Your task to perform on an android device: Show me productivity apps on the Play Store Image 0: 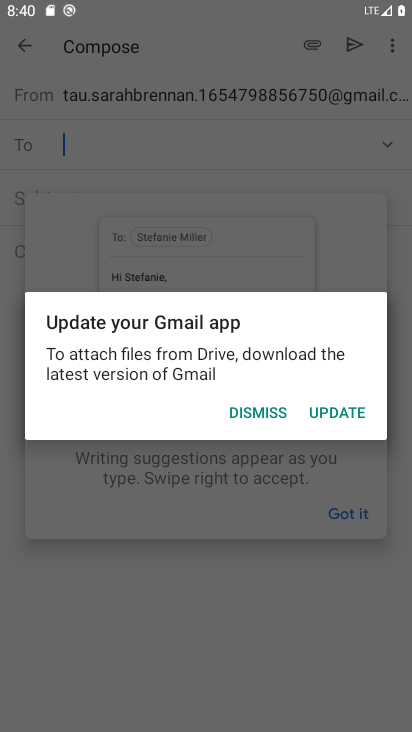
Step 0: press home button
Your task to perform on an android device: Show me productivity apps on the Play Store Image 1: 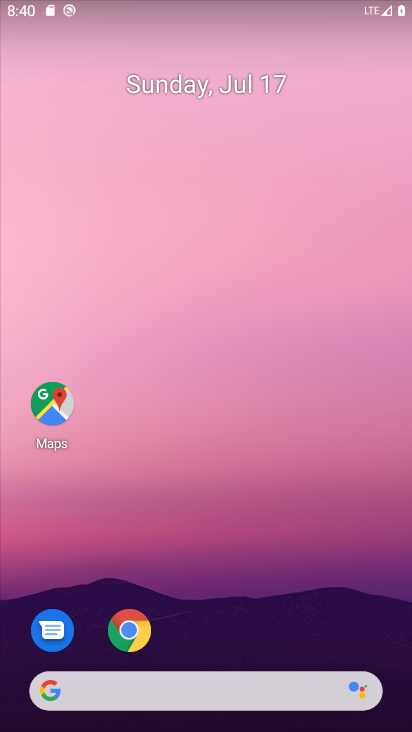
Step 1: drag from (246, 616) to (309, 506)
Your task to perform on an android device: Show me productivity apps on the Play Store Image 2: 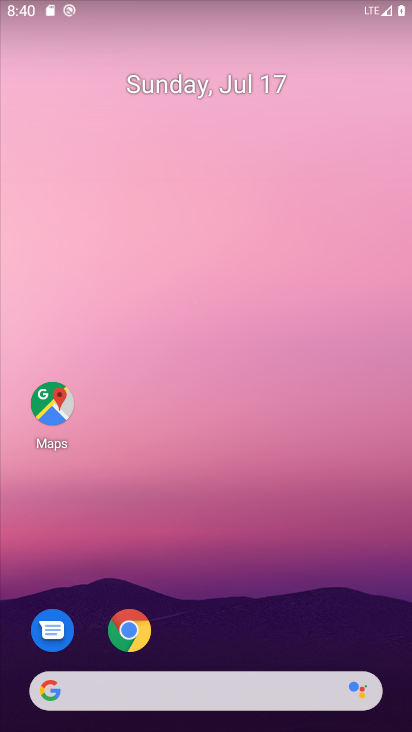
Step 2: drag from (183, 564) to (222, 7)
Your task to perform on an android device: Show me productivity apps on the Play Store Image 3: 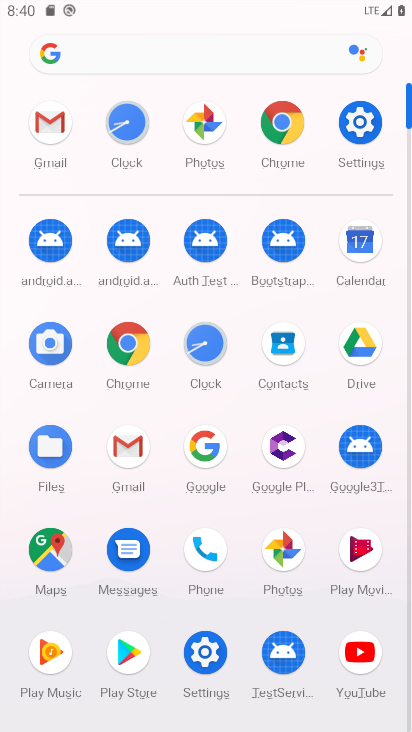
Step 3: click (125, 666)
Your task to perform on an android device: Show me productivity apps on the Play Store Image 4: 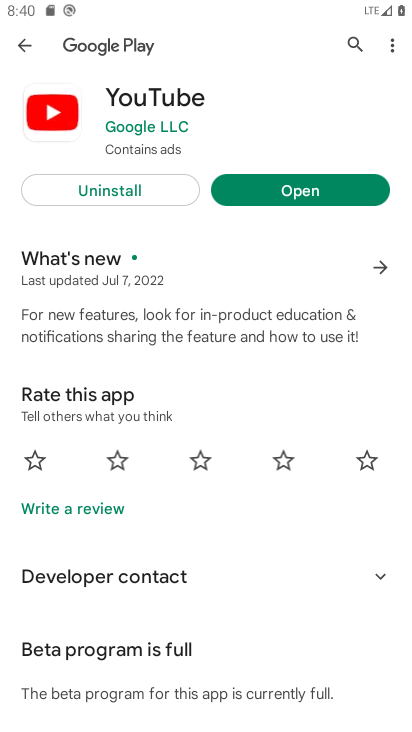
Step 4: click (26, 45)
Your task to perform on an android device: Show me productivity apps on the Play Store Image 5: 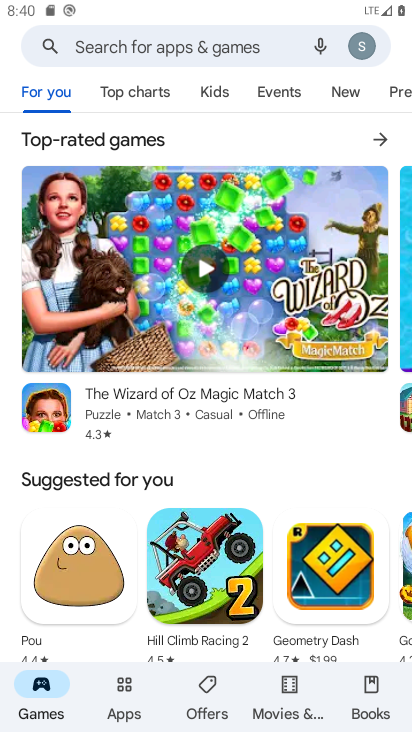
Step 5: click (132, 700)
Your task to perform on an android device: Show me productivity apps on the Play Store Image 6: 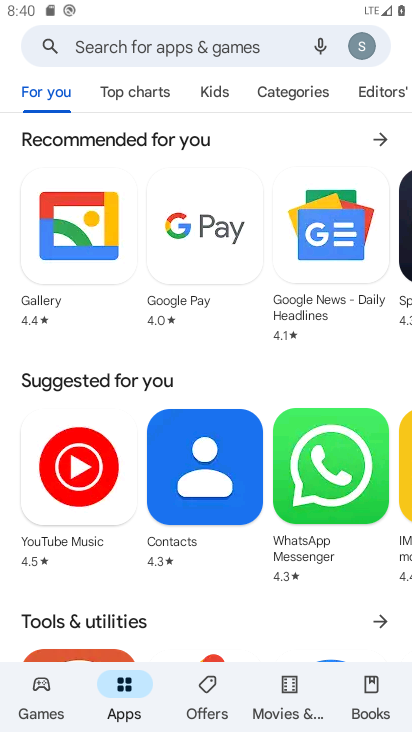
Step 6: click (301, 94)
Your task to perform on an android device: Show me productivity apps on the Play Store Image 7: 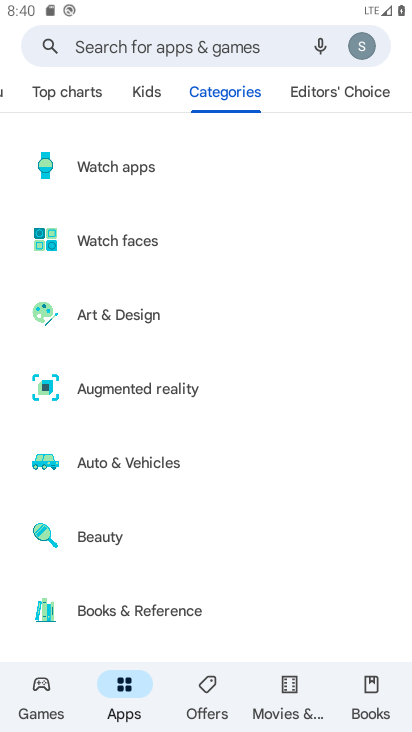
Step 7: drag from (146, 559) to (126, 133)
Your task to perform on an android device: Show me productivity apps on the Play Store Image 8: 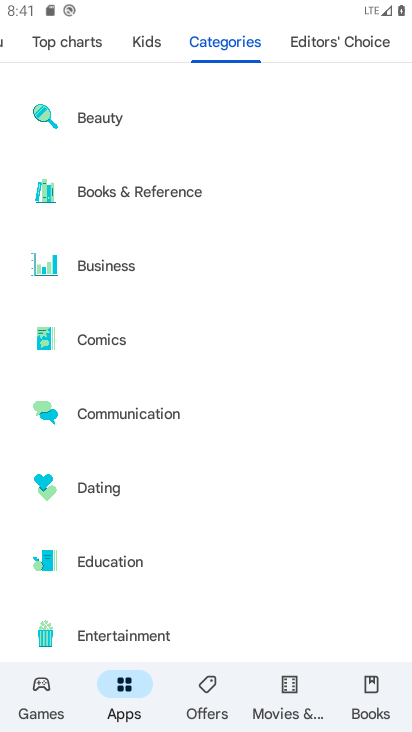
Step 8: drag from (127, 529) to (142, 95)
Your task to perform on an android device: Show me productivity apps on the Play Store Image 9: 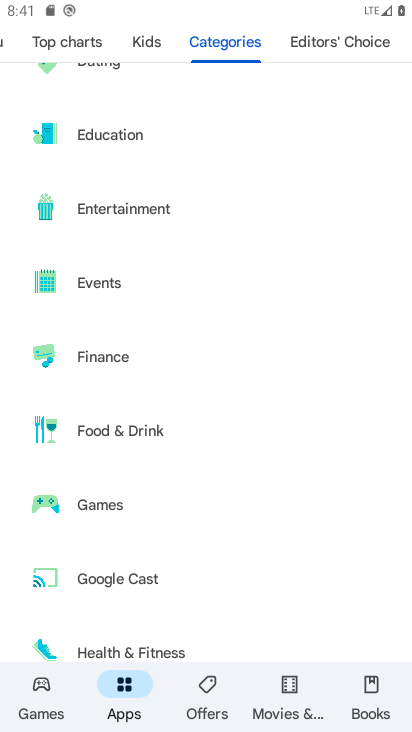
Step 9: drag from (150, 593) to (172, 146)
Your task to perform on an android device: Show me productivity apps on the Play Store Image 10: 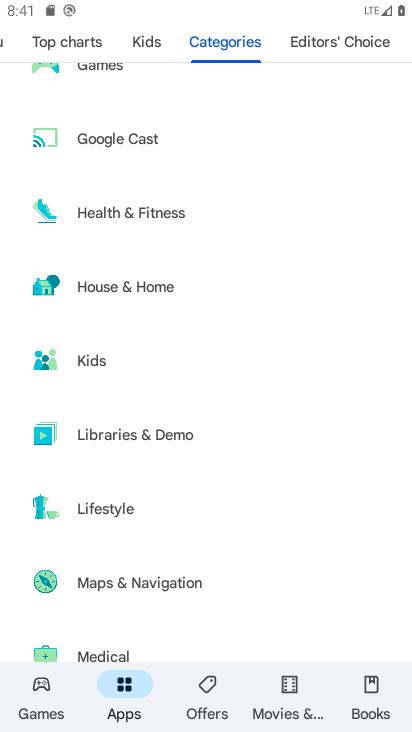
Step 10: drag from (126, 596) to (144, 212)
Your task to perform on an android device: Show me productivity apps on the Play Store Image 11: 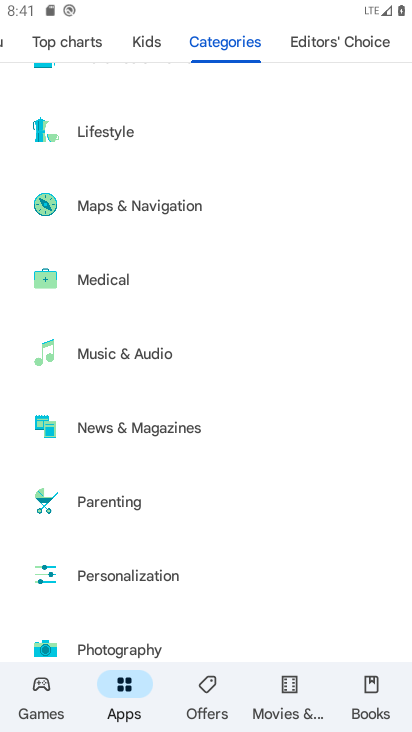
Step 11: drag from (133, 562) to (133, 324)
Your task to perform on an android device: Show me productivity apps on the Play Store Image 12: 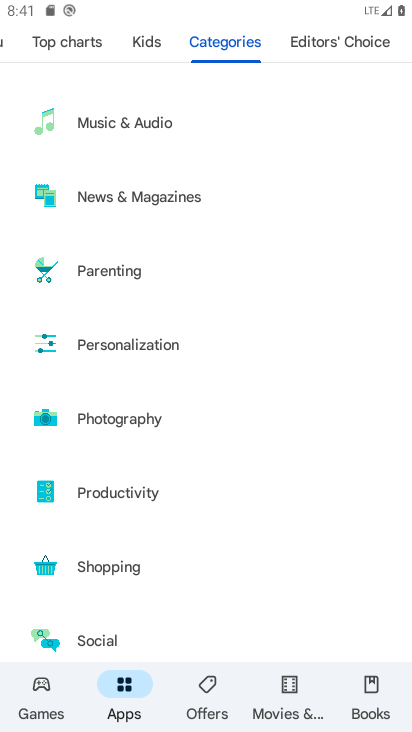
Step 12: click (127, 505)
Your task to perform on an android device: Show me productivity apps on the Play Store Image 13: 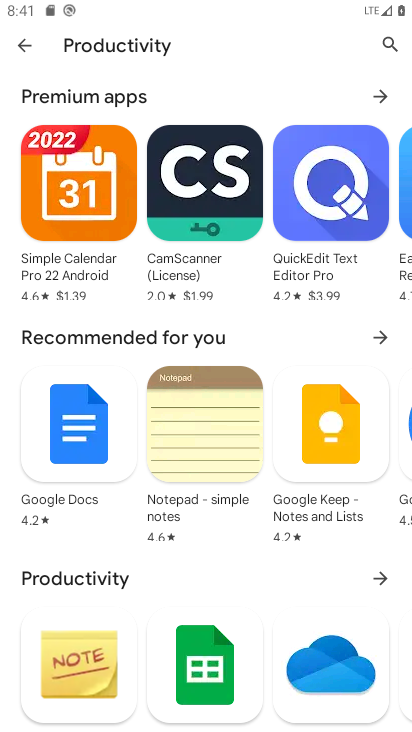
Step 13: task complete